Your task to perform on an android device: turn on showing notifications on the lock screen Image 0: 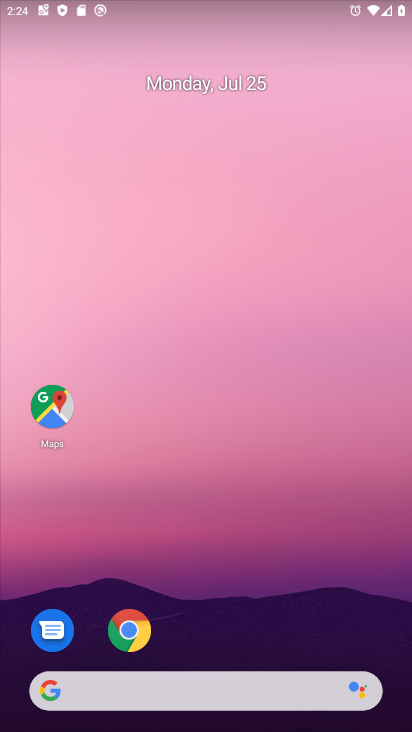
Step 0: drag from (275, 624) to (232, 93)
Your task to perform on an android device: turn on showing notifications on the lock screen Image 1: 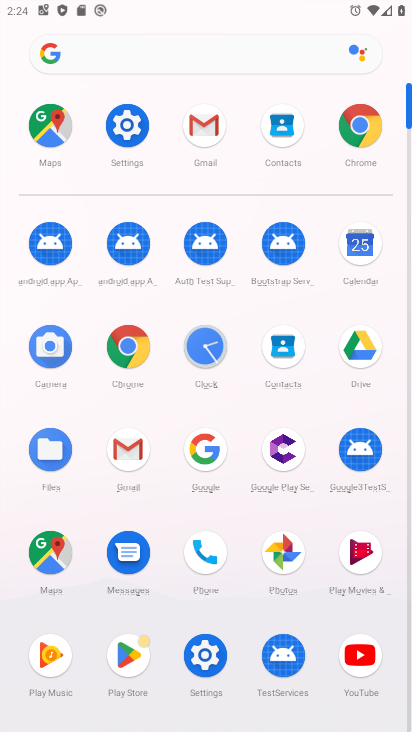
Step 1: click (130, 138)
Your task to perform on an android device: turn on showing notifications on the lock screen Image 2: 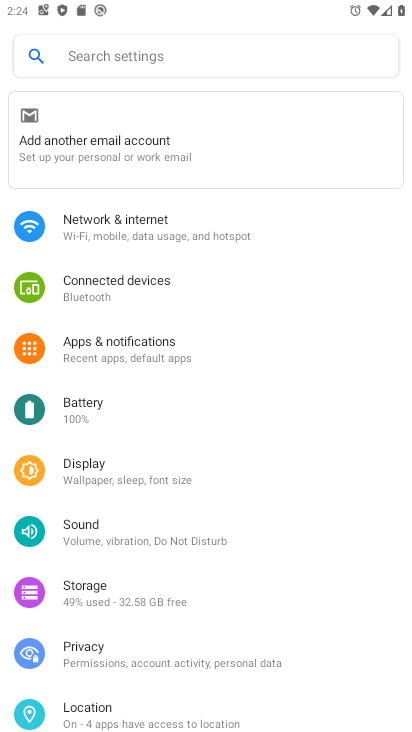
Step 2: click (127, 361)
Your task to perform on an android device: turn on showing notifications on the lock screen Image 3: 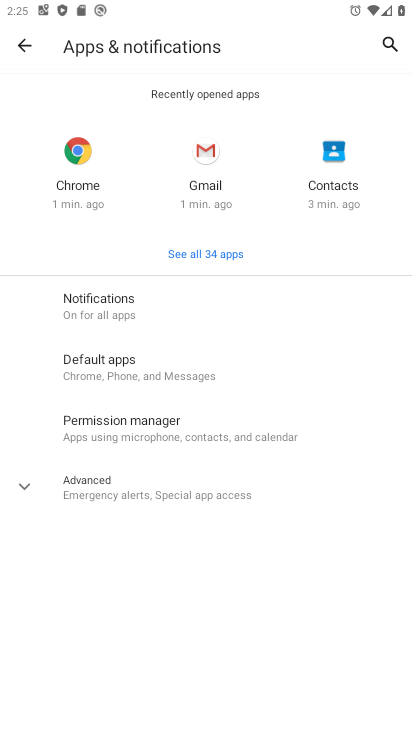
Step 3: task complete